Your task to perform on an android device: turn on bluetooth scan Image 0: 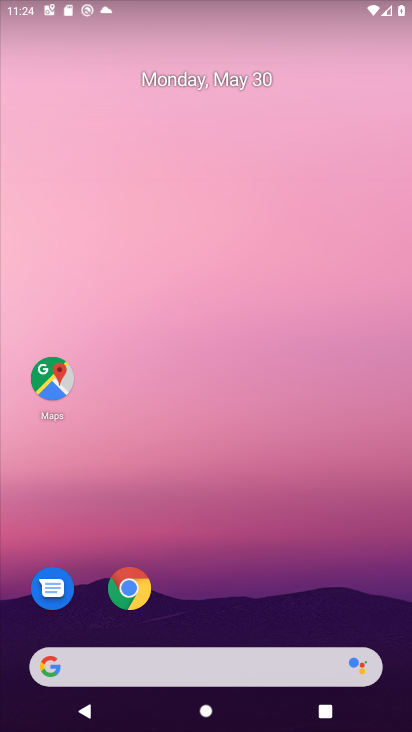
Step 0: drag from (294, 506) to (300, 8)
Your task to perform on an android device: turn on bluetooth scan Image 1: 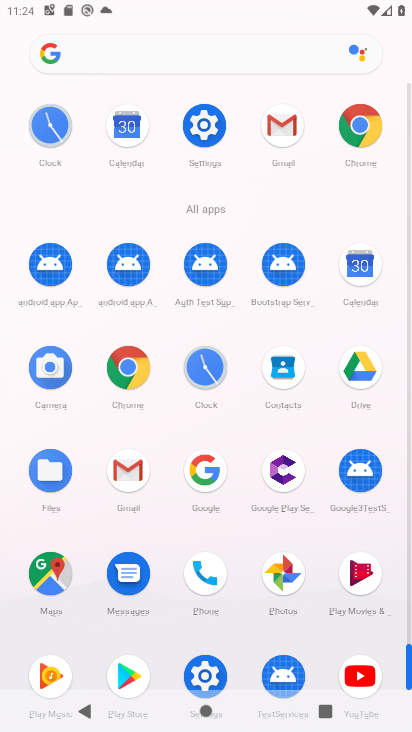
Step 1: click (203, 126)
Your task to perform on an android device: turn on bluetooth scan Image 2: 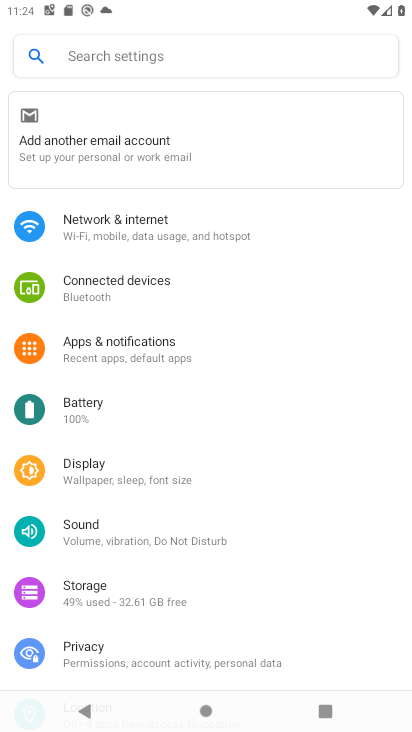
Step 2: drag from (96, 416) to (105, 23)
Your task to perform on an android device: turn on bluetooth scan Image 3: 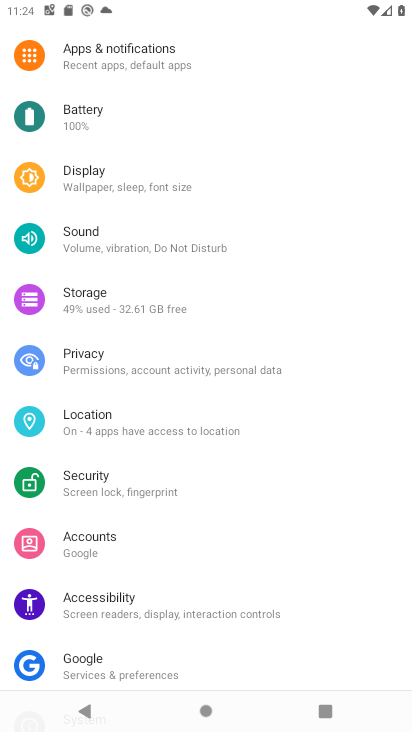
Step 3: click (104, 412)
Your task to perform on an android device: turn on bluetooth scan Image 4: 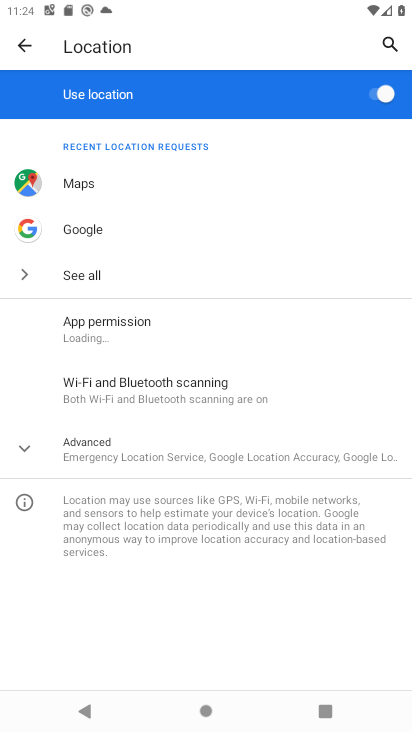
Step 4: click (247, 405)
Your task to perform on an android device: turn on bluetooth scan Image 5: 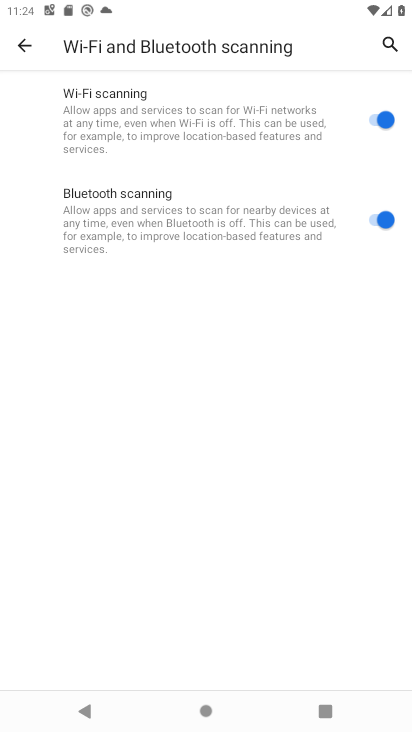
Step 5: task complete